Your task to perform on an android device: turn off improve location accuracy Image 0: 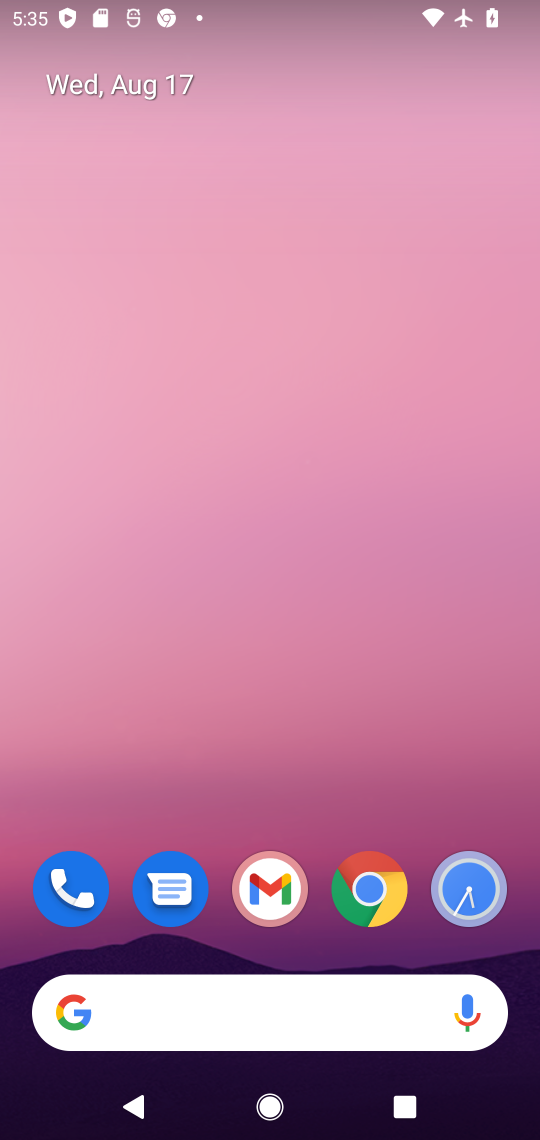
Step 0: drag from (329, 794) to (265, 201)
Your task to perform on an android device: turn off improve location accuracy Image 1: 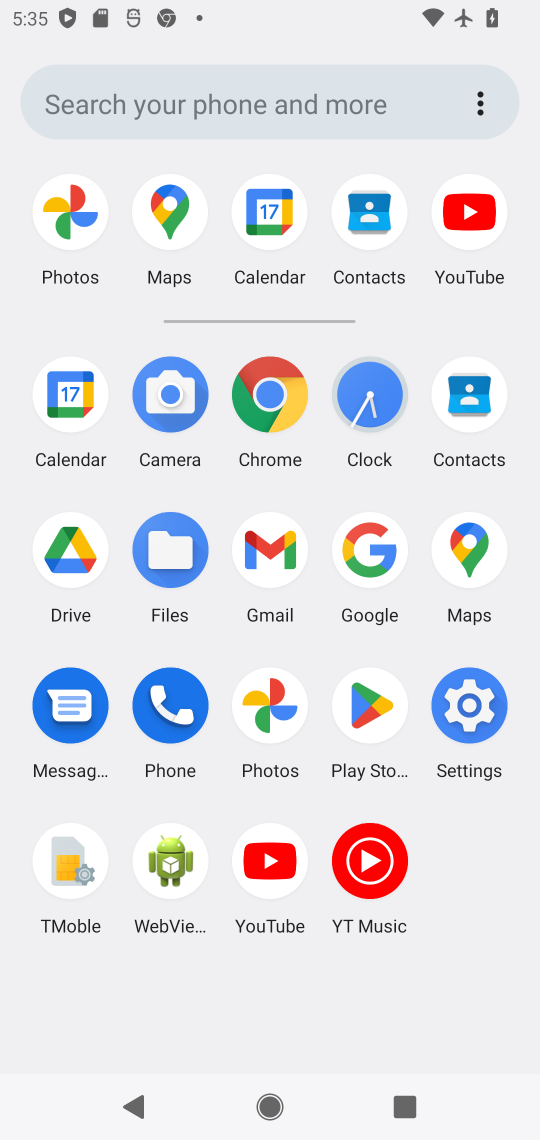
Step 1: click (471, 706)
Your task to perform on an android device: turn off improve location accuracy Image 2: 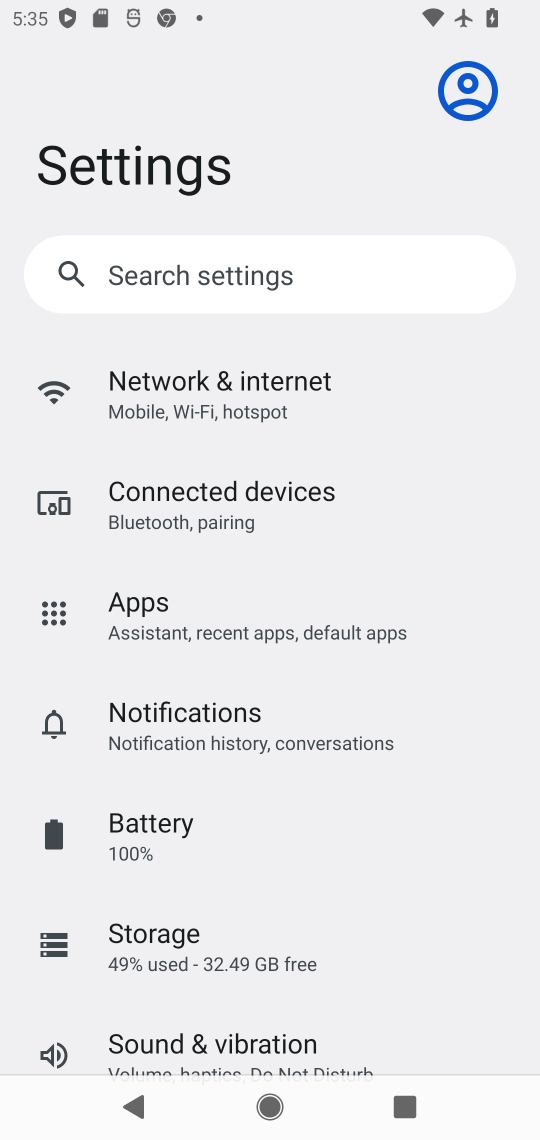
Step 2: drag from (319, 916) to (242, 429)
Your task to perform on an android device: turn off improve location accuracy Image 3: 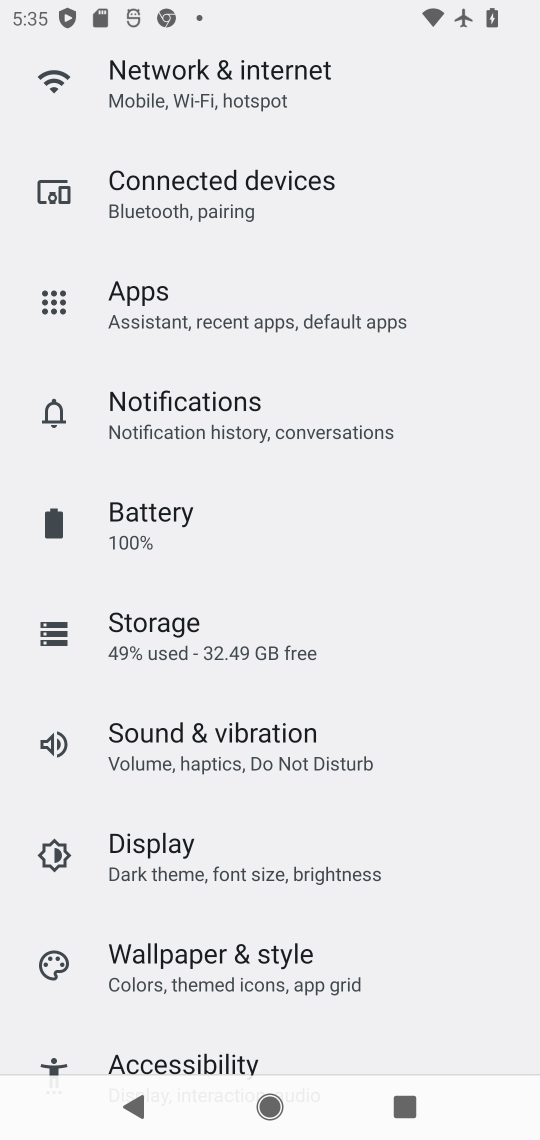
Step 3: drag from (347, 1010) to (318, 428)
Your task to perform on an android device: turn off improve location accuracy Image 4: 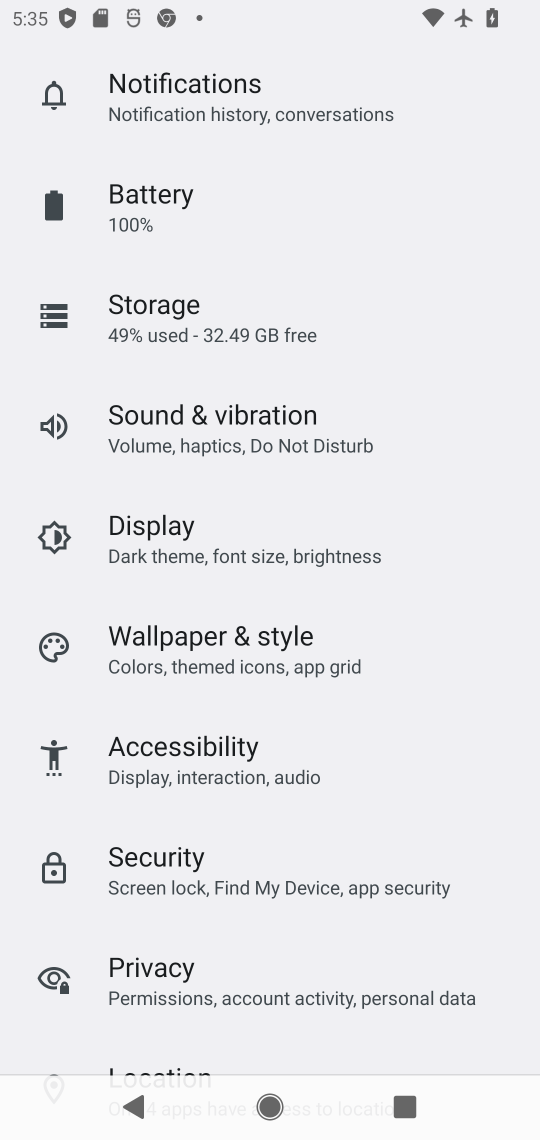
Step 4: drag from (357, 841) to (293, 378)
Your task to perform on an android device: turn off improve location accuracy Image 5: 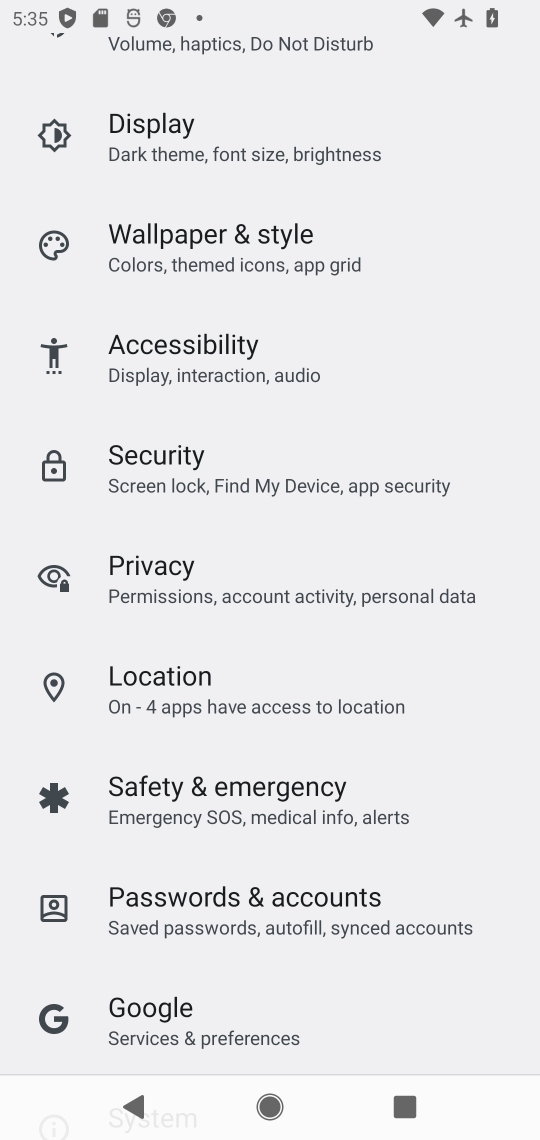
Step 5: click (171, 676)
Your task to perform on an android device: turn off improve location accuracy Image 6: 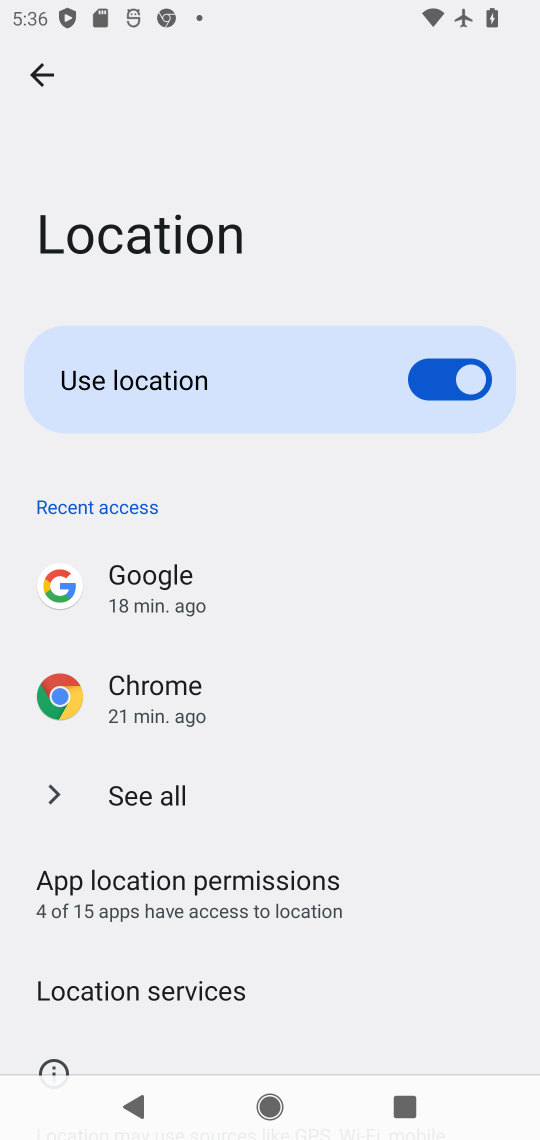
Step 6: click (186, 982)
Your task to perform on an android device: turn off improve location accuracy Image 7: 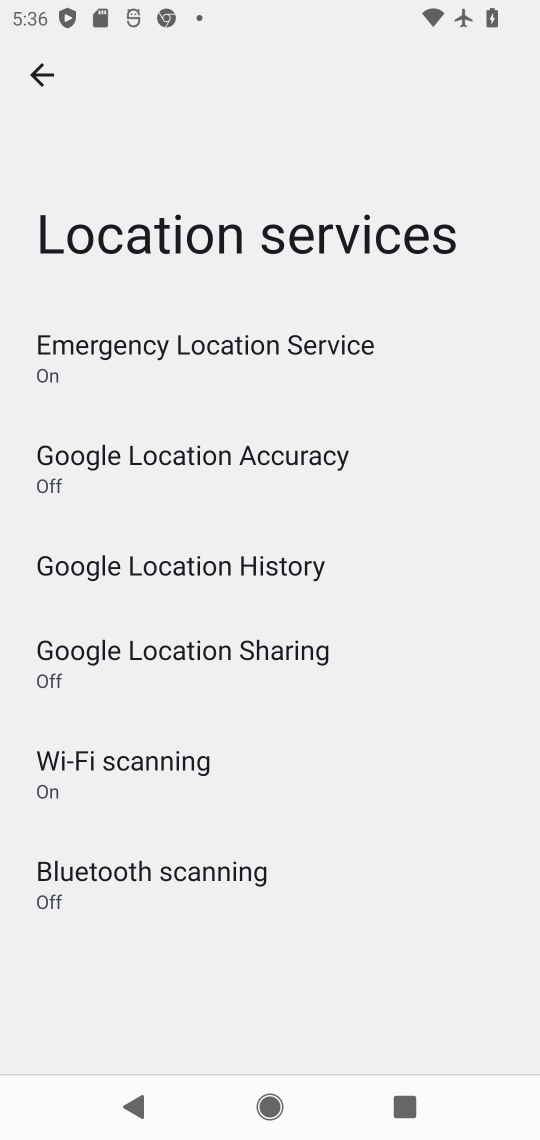
Step 7: click (201, 456)
Your task to perform on an android device: turn off improve location accuracy Image 8: 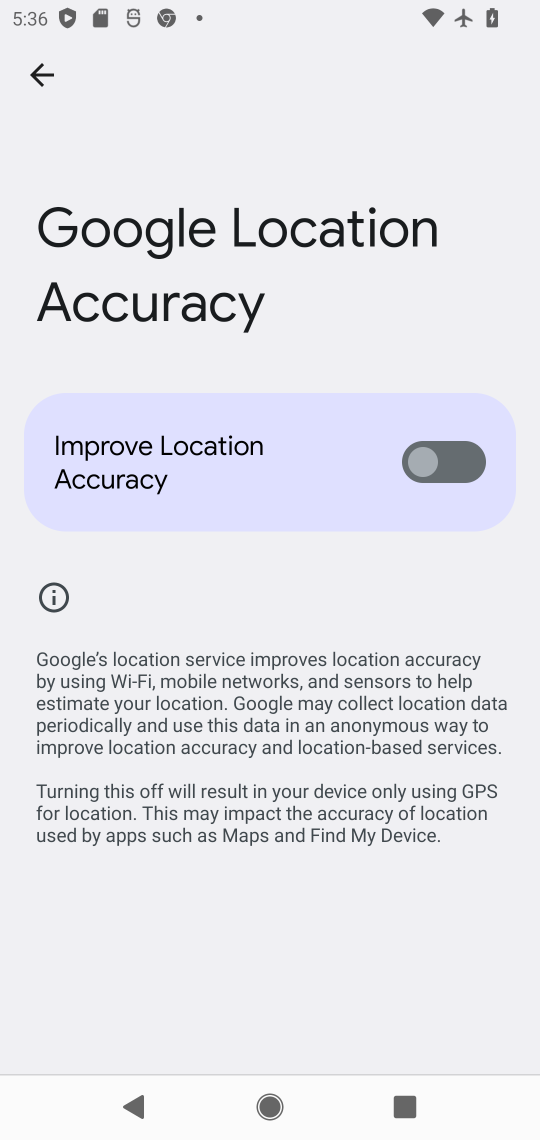
Step 8: task complete